Your task to perform on an android device: turn off wifi Image 0: 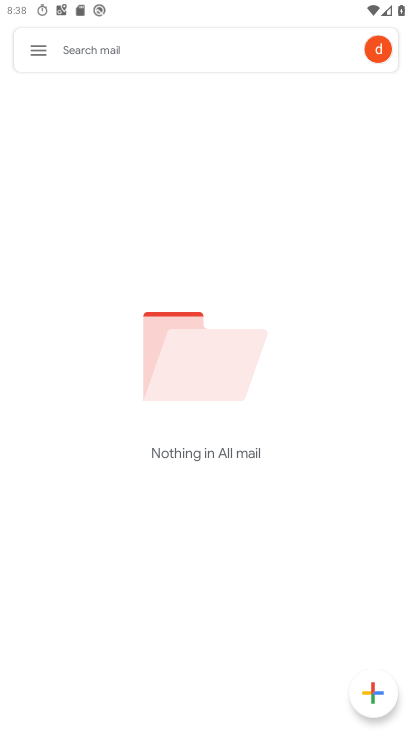
Step 0: press home button
Your task to perform on an android device: turn off wifi Image 1: 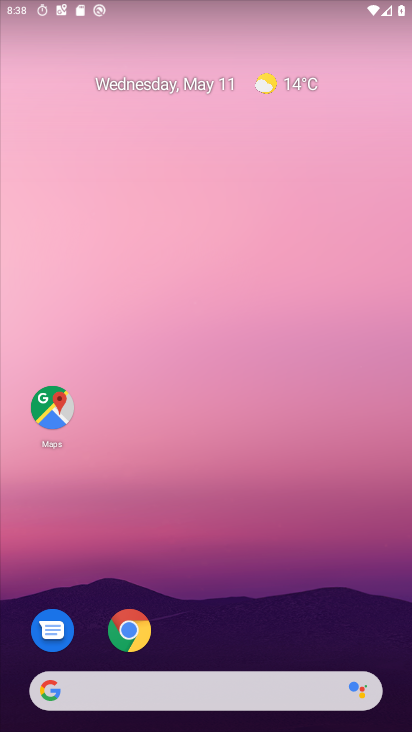
Step 1: drag from (292, 3) to (264, 78)
Your task to perform on an android device: turn off wifi Image 2: 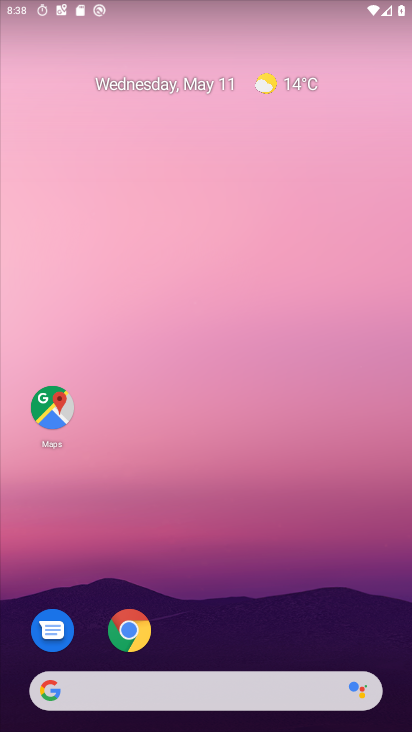
Step 2: drag from (161, 6) to (113, 235)
Your task to perform on an android device: turn off wifi Image 3: 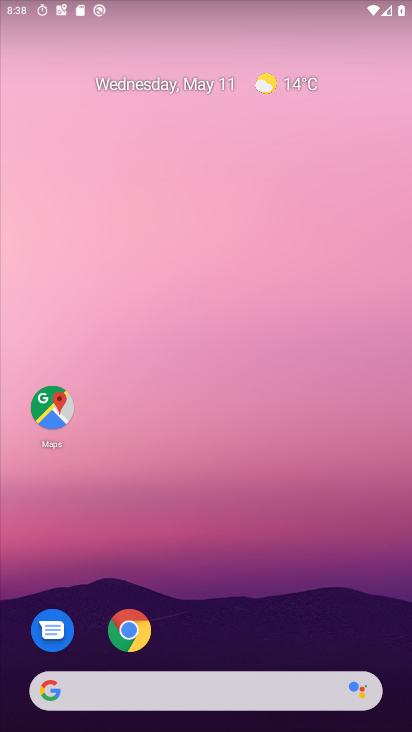
Step 3: drag from (162, 3) to (95, 415)
Your task to perform on an android device: turn off wifi Image 4: 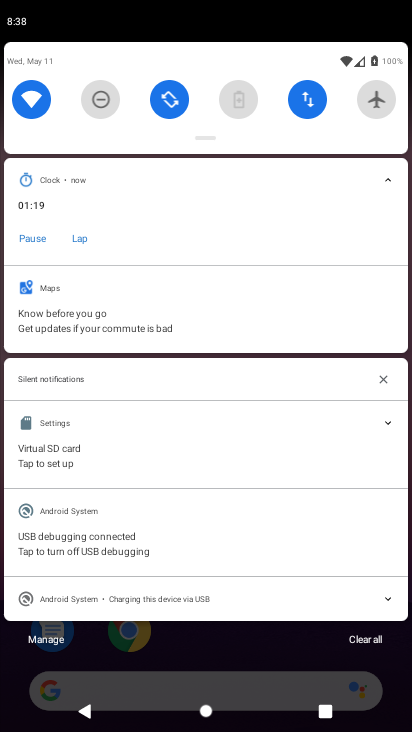
Step 4: click (29, 102)
Your task to perform on an android device: turn off wifi Image 5: 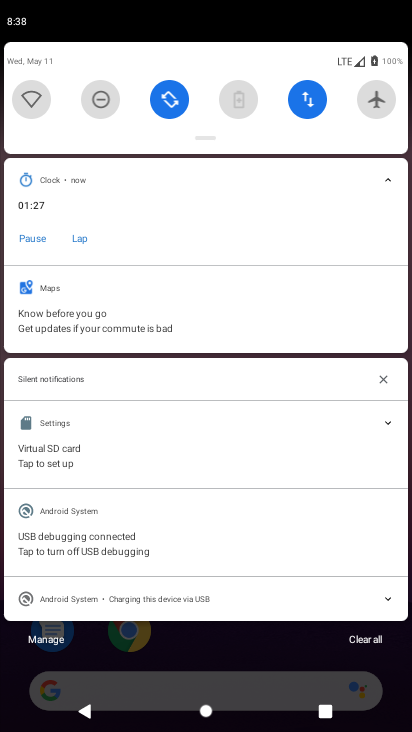
Step 5: task complete